Your task to perform on an android device: Open the calendar app, open the side menu, and click the "Day" option Image 0: 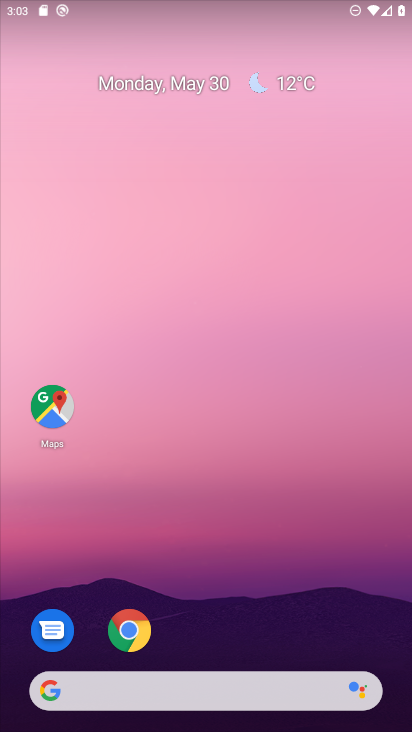
Step 0: drag from (225, 693) to (207, 187)
Your task to perform on an android device: Open the calendar app, open the side menu, and click the "Day" option Image 1: 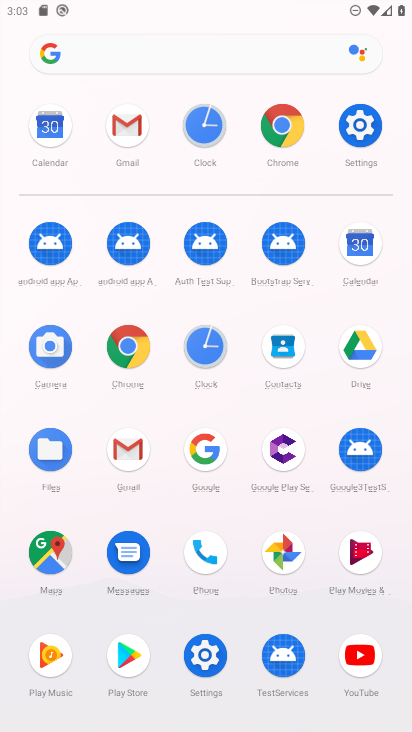
Step 1: click (356, 242)
Your task to perform on an android device: Open the calendar app, open the side menu, and click the "Day" option Image 2: 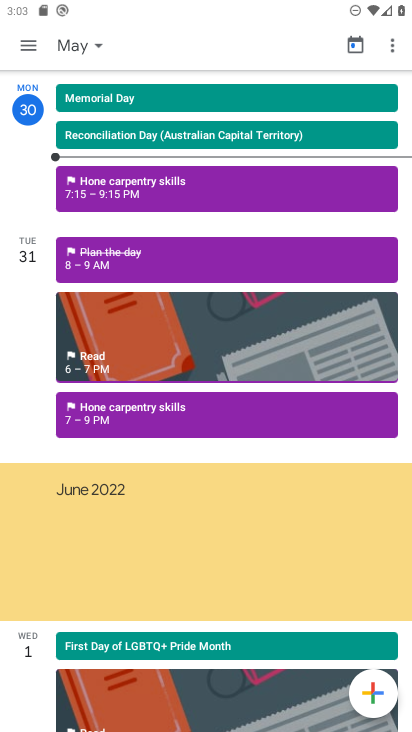
Step 2: click (30, 51)
Your task to perform on an android device: Open the calendar app, open the side menu, and click the "Day" option Image 3: 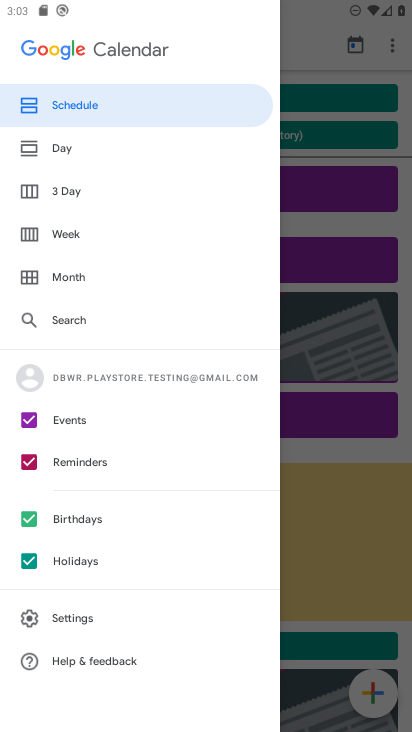
Step 3: click (73, 153)
Your task to perform on an android device: Open the calendar app, open the side menu, and click the "Day" option Image 4: 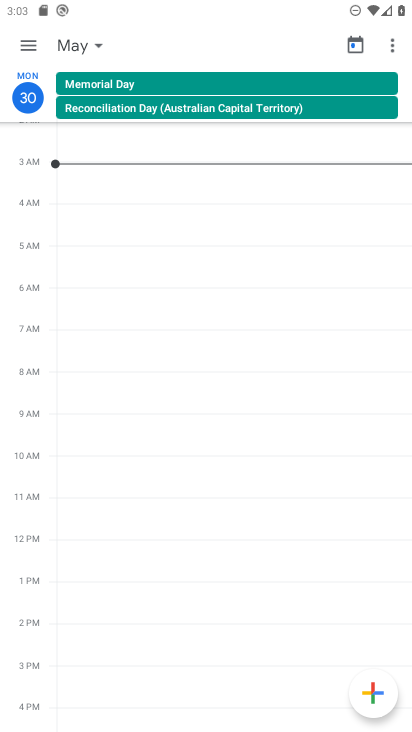
Step 4: task complete